Your task to perform on an android device: Open settings on Google Maps Image 0: 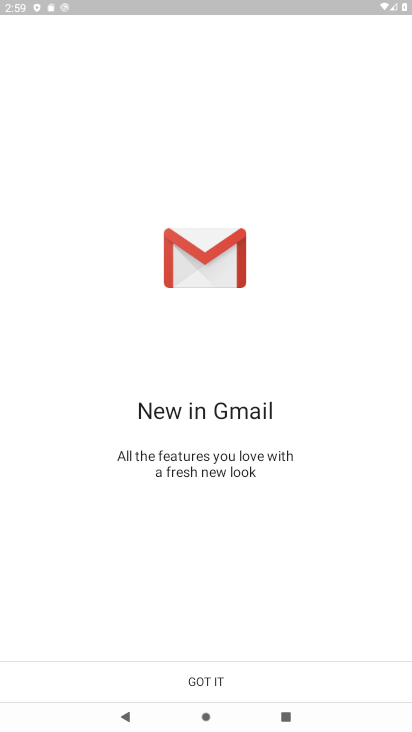
Step 0: press home button
Your task to perform on an android device: Open settings on Google Maps Image 1: 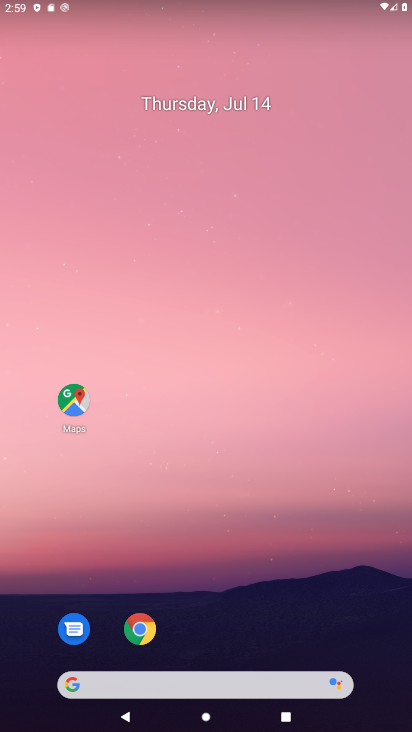
Step 1: click (70, 395)
Your task to perform on an android device: Open settings on Google Maps Image 2: 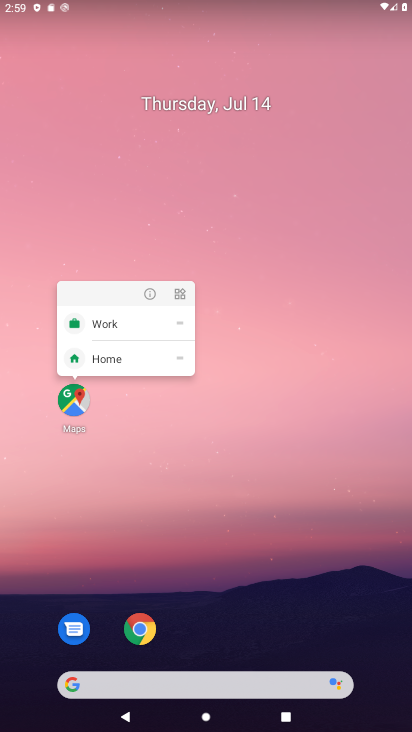
Step 2: click (70, 395)
Your task to perform on an android device: Open settings on Google Maps Image 3: 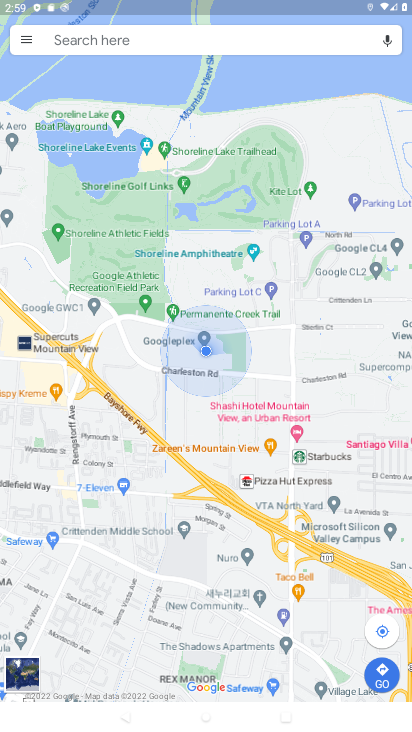
Step 3: click (21, 34)
Your task to perform on an android device: Open settings on Google Maps Image 4: 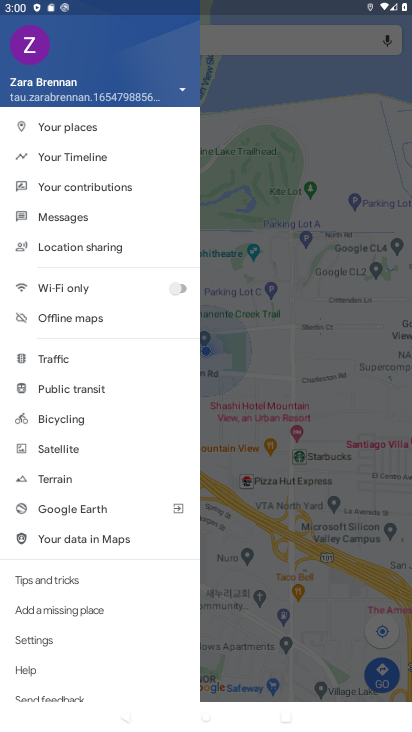
Step 4: click (64, 641)
Your task to perform on an android device: Open settings on Google Maps Image 5: 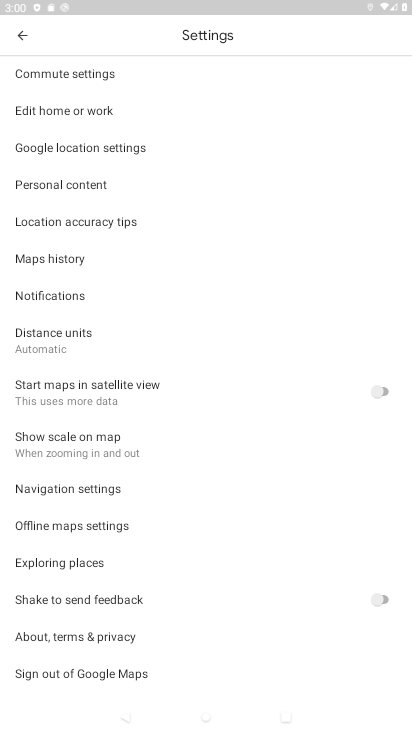
Step 5: task complete